Your task to perform on an android device: Go to Google Image 0: 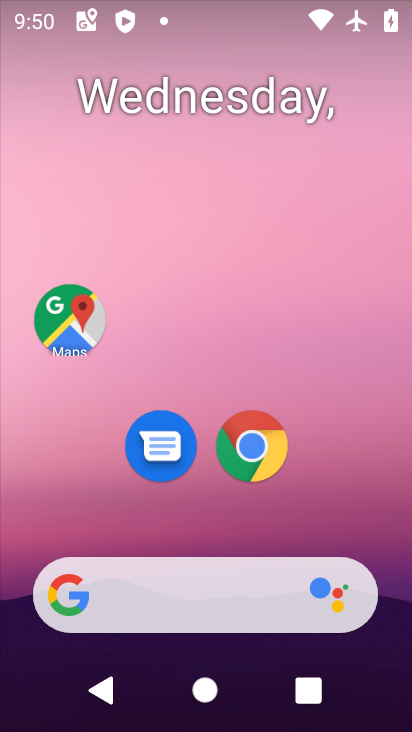
Step 0: press home button
Your task to perform on an android device: Go to Google Image 1: 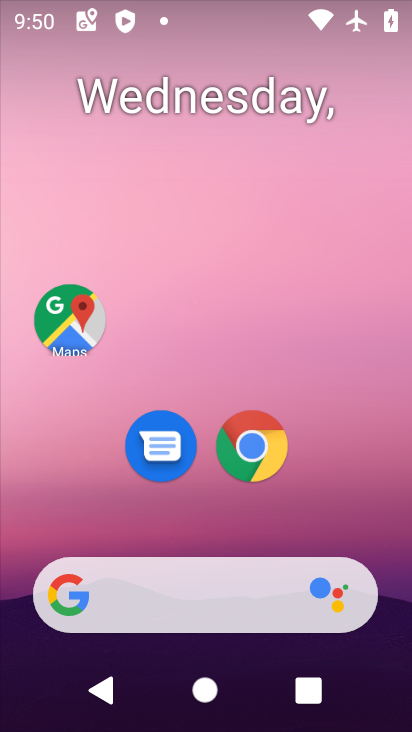
Step 1: drag from (181, 587) to (345, 77)
Your task to perform on an android device: Go to Google Image 2: 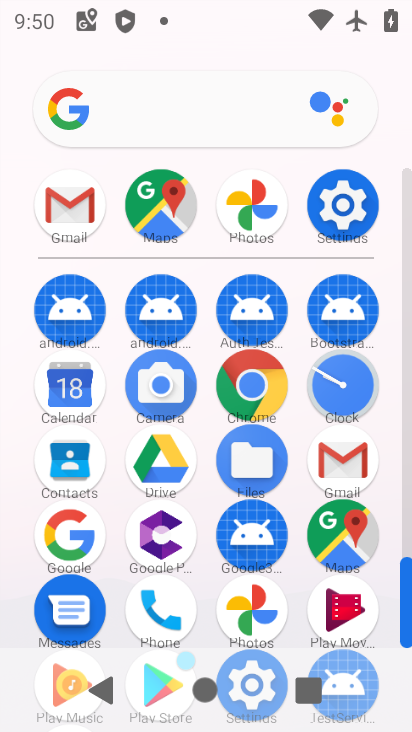
Step 2: click (85, 537)
Your task to perform on an android device: Go to Google Image 3: 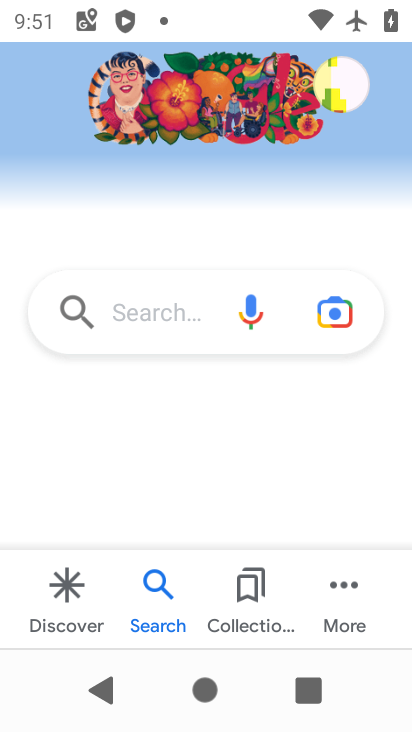
Step 3: task complete